Your task to perform on an android device: remove spam from my inbox in the gmail app Image 0: 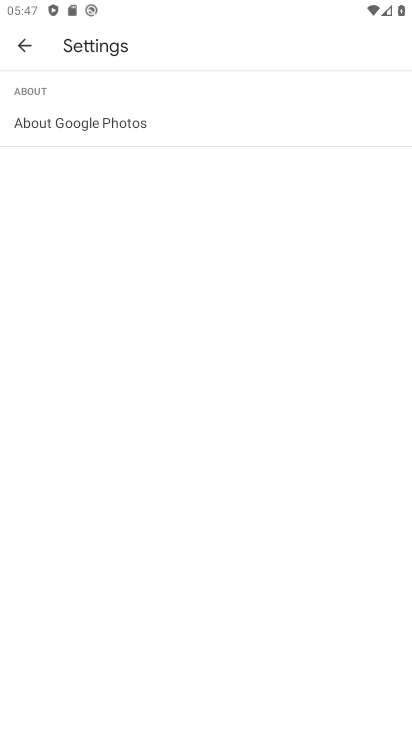
Step 0: press home button
Your task to perform on an android device: remove spam from my inbox in the gmail app Image 1: 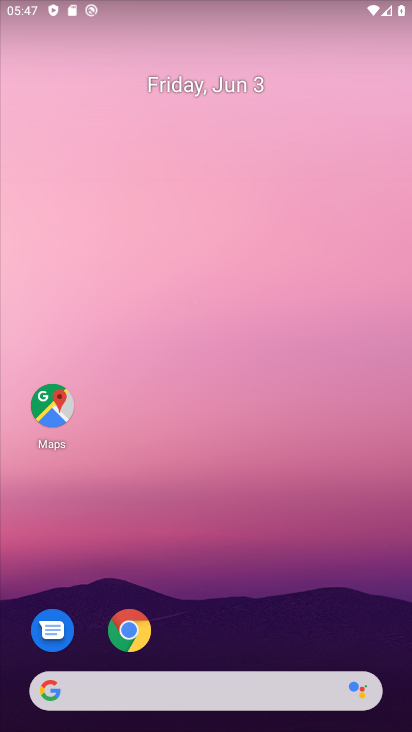
Step 1: drag from (247, 647) to (388, 148)
Your task to perform on an android device: remove spam from my inbox in the gmail app Image 2: 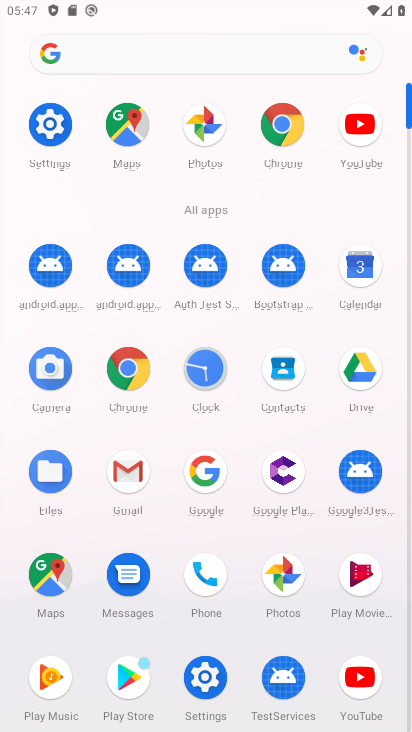
Step 2: click (128, 475)
Your task to perform on an android device: remove spam from my inbox in the gmail app Image 3: 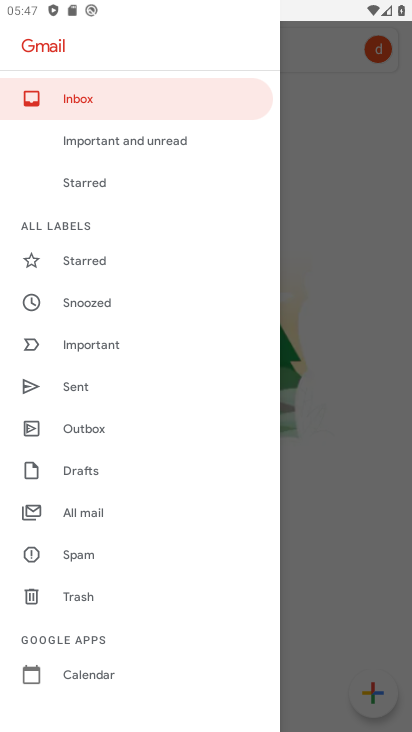
Step 3: click (101, 544)
Your task to perform on an android device: remove spam from my inbox in the gmail app Image 4: 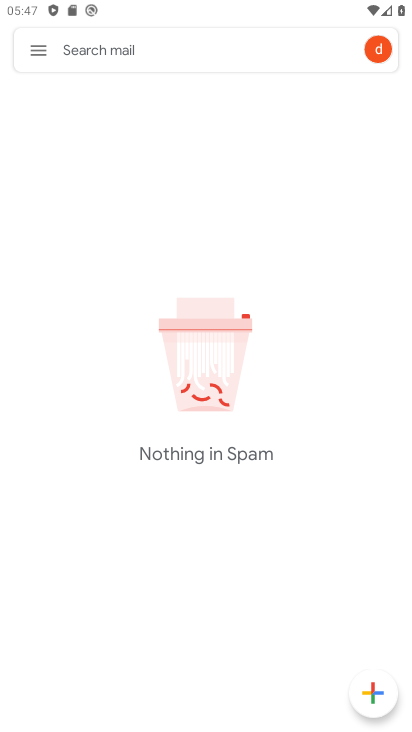
Step 4: task complete